Your task to perform on an android device: turn on sleep mode Image 0: 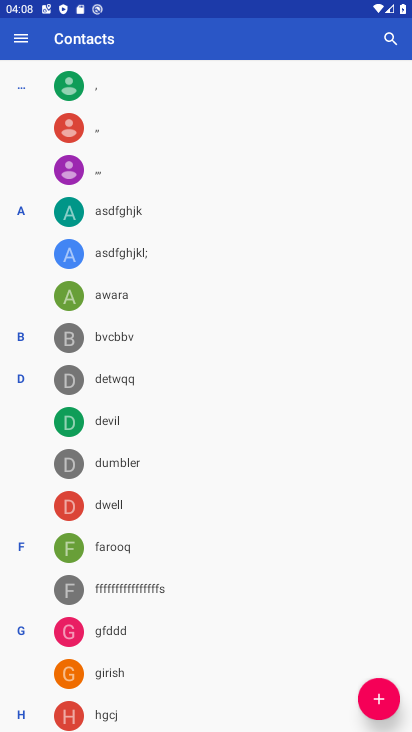
Step 0: press home button
Your task to perform on an android device: turn on sleep mode Image 1: 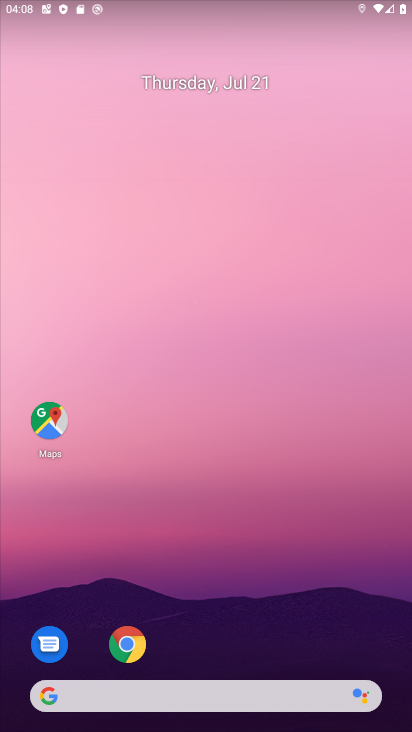
Step 1: drag from (225, 661) to (247, 3)
Your task to perform on an android device: turn on sleep mode Image 2: 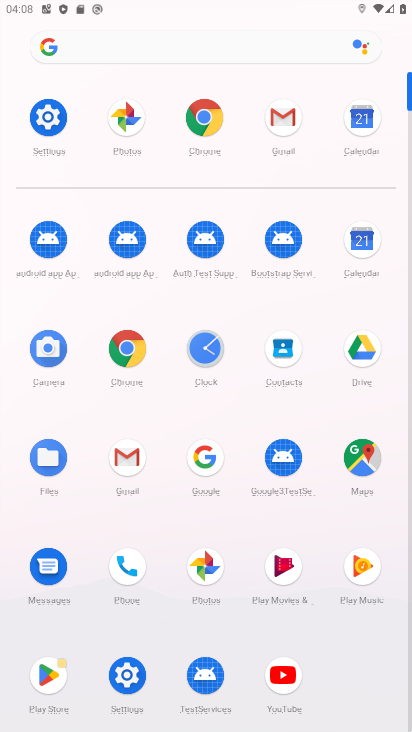
Step 2: click (45, 129)
Your task to perform on an android device: turn on sleep mode Image 3: 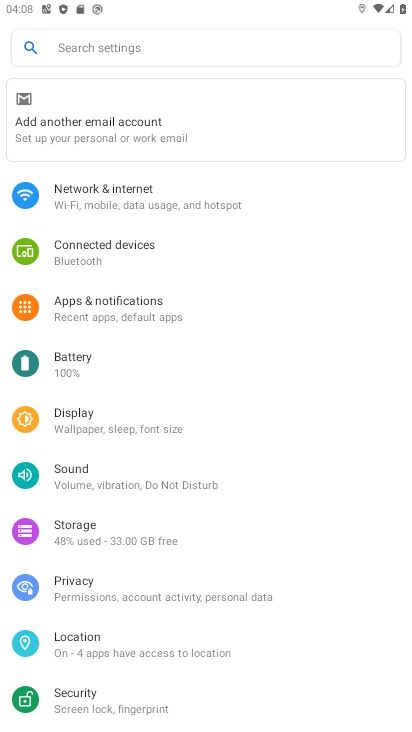
Step 3: click (78, 425)
Your task to perform on an android device: turn on sleep mode Image 4: 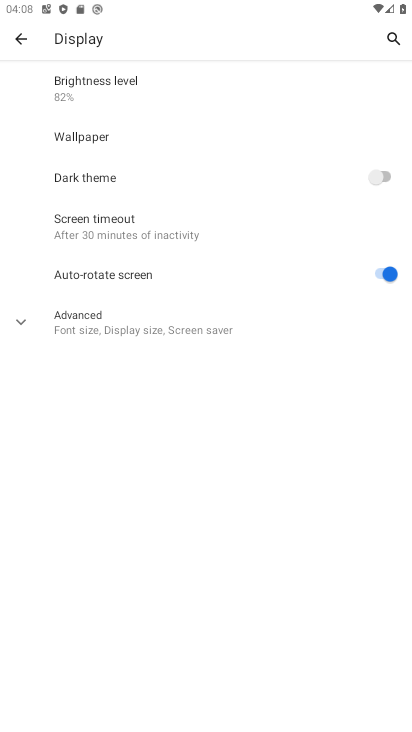
Step 4: click (11, 326)
Your task to perform on an android device: turn on sleep mode Image 5: 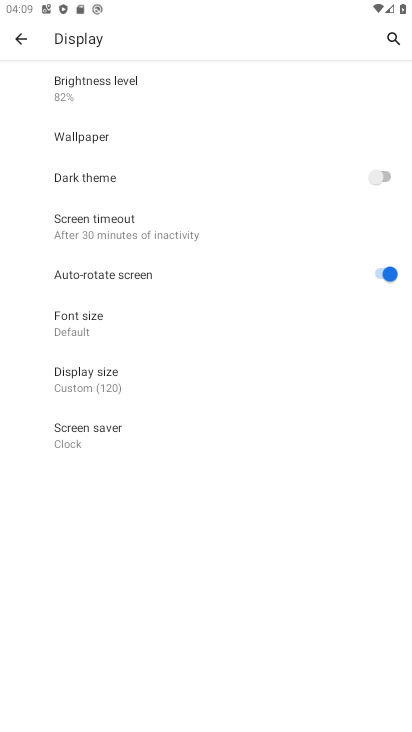
Step 5: task complete